Your task to perform on an android device: check storage Image 0: 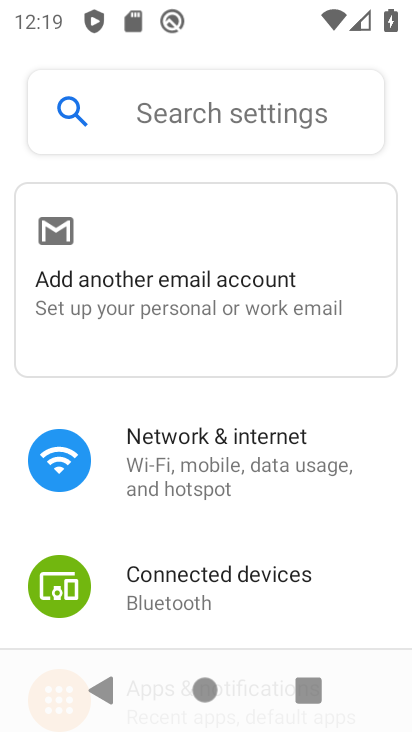
Step 0: drag from (321, 622) to (331, 55)
Your task to perform on an android device: check storage Image 1: 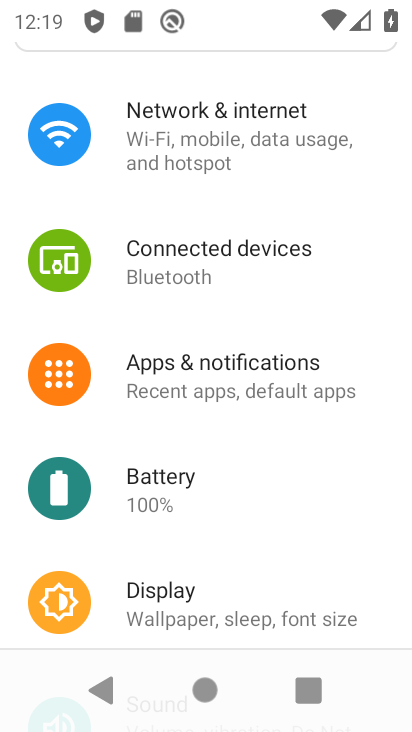
Step 1: drag from (241, 545) to (284, 114)
Your task to perform on an android device: check storage Image 2: 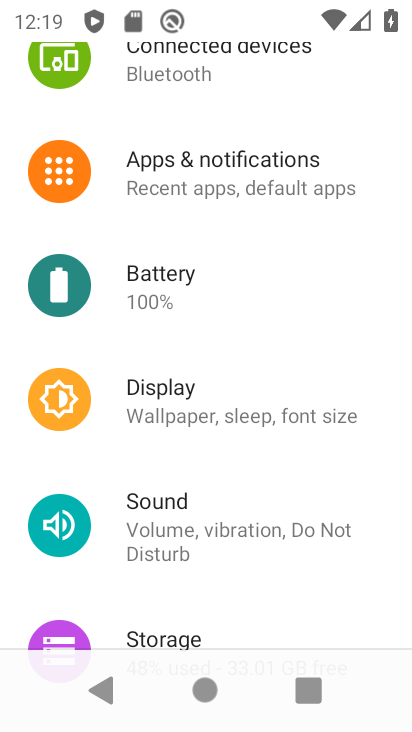
Step 2: drag from (277, 516) to (265, 268)
Your task to perform on an android device: check storage Image 3: 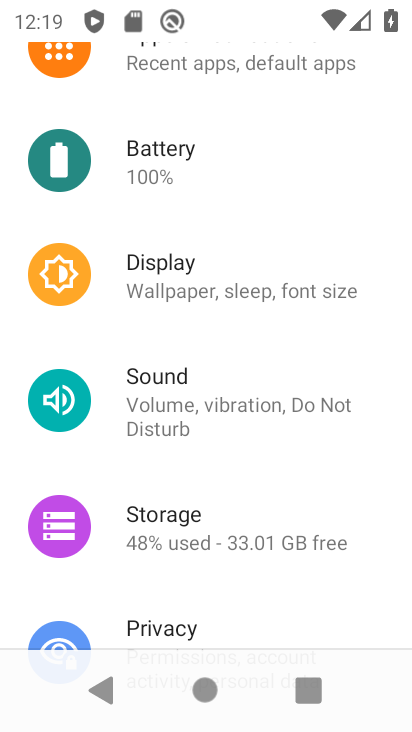
Step 3: click (245, 507)
Your task to perform on an android device: check storage Image 4: 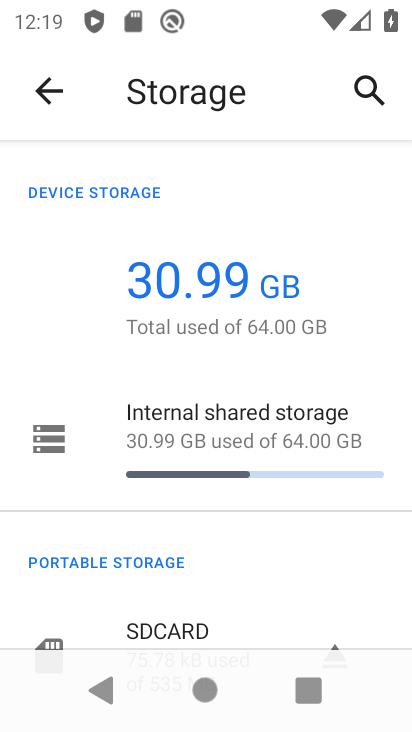
Step 4: task complete